Your task to perform on an android device: Go to battery settings Image 0: 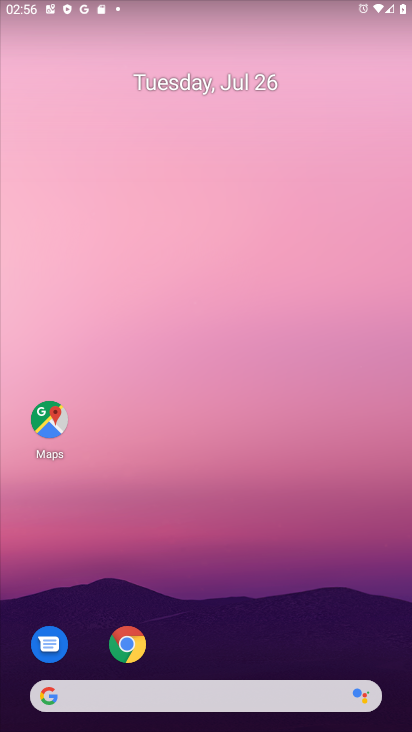
Step 0: drag from (209, 666) to (118, 53)
Your task to perform on an android device: Go to battery settings Image 1: 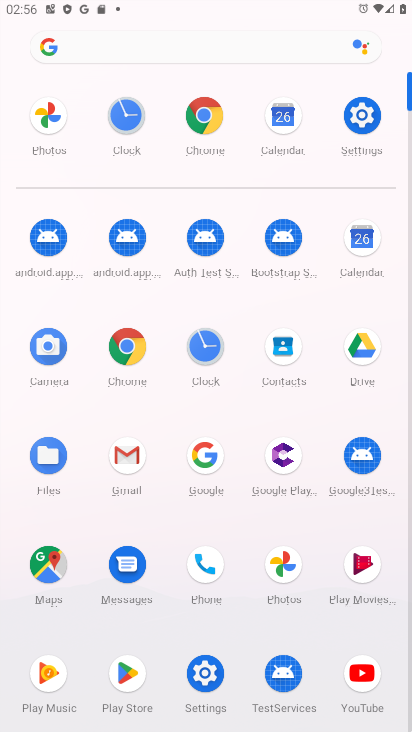
Step 1: click (360, 121)
Your task to perform on an android device: Go to battery settings Image 2: 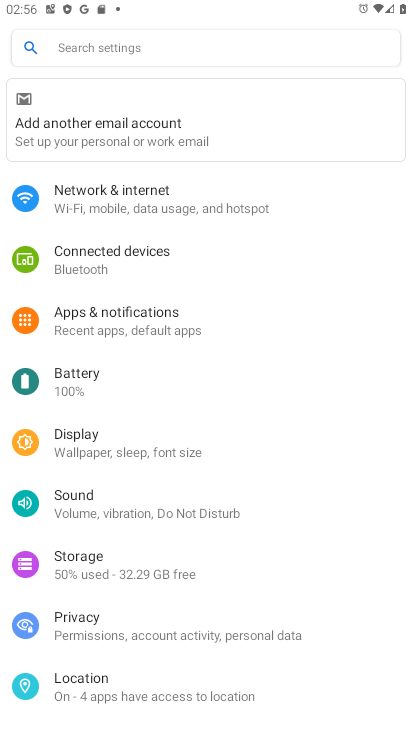
Step 2: click (62, 356)
Your task to perform on an android device: Go to battery settings Image 3: 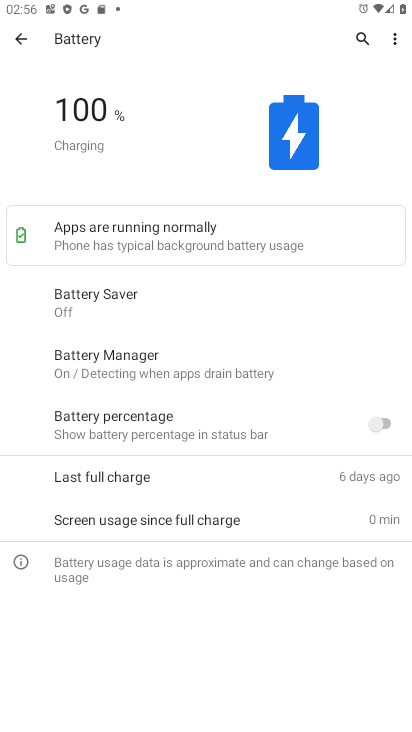
Step 3: task complete